Your task to perform on an android device: Go to battery settings Image 0: 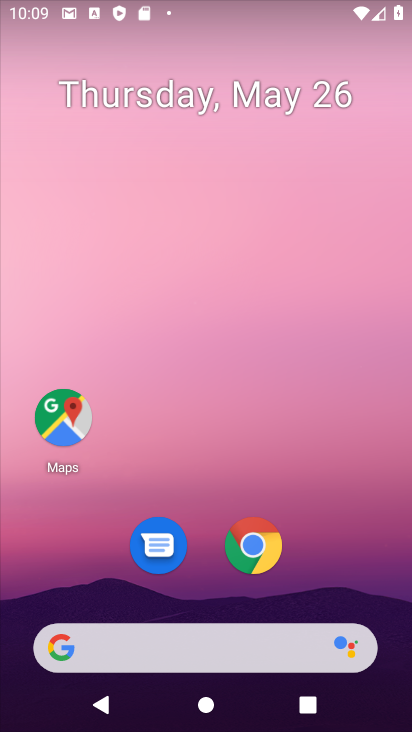
Step 0: press home button
Your task to perform on an android device: Go to battery settings Image 1: 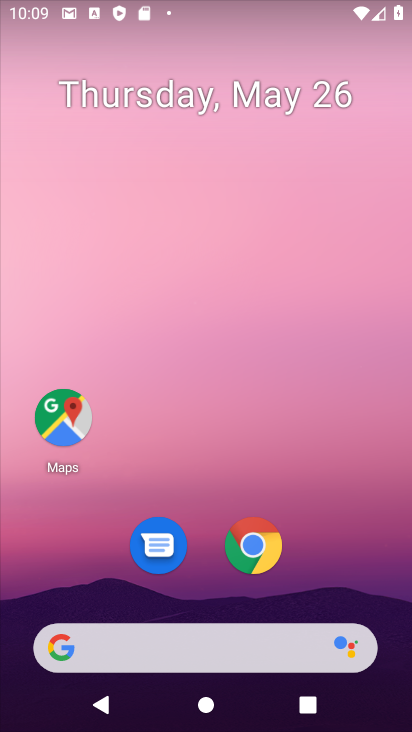
Step 1: drag from (319, 505) to (380, 140)
Your task to perform on an android device: Go to battery settings Image 2: 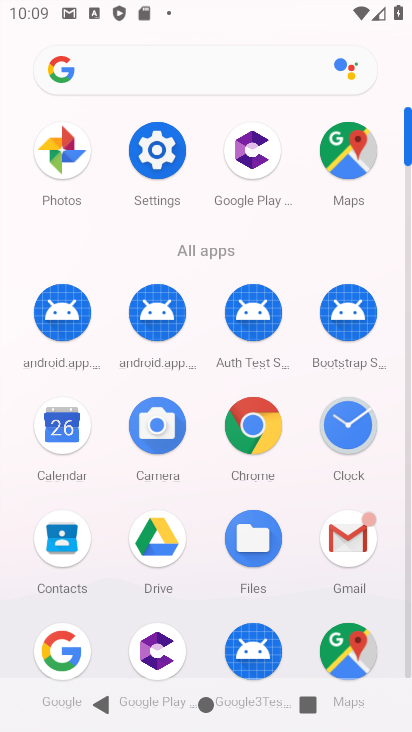
Step 2: drag from (332, 367) to (326, 161)
Your task to perform on an android device: Go to battery settings Image 3: 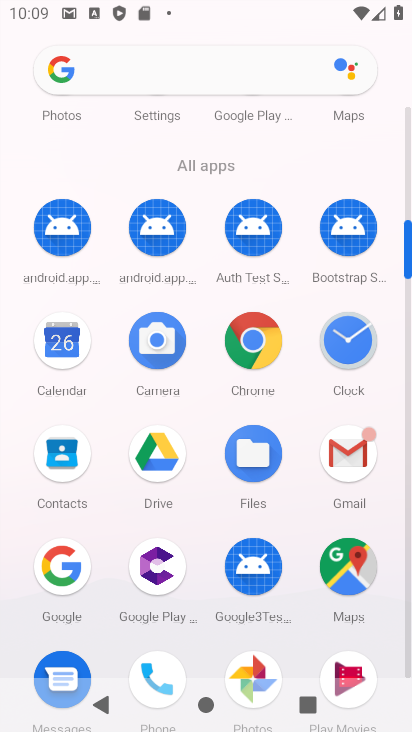
Step 3: drag from (193, 293) to (122, 619)
Your task to perform on an android device: Go to battery settings Image 4: 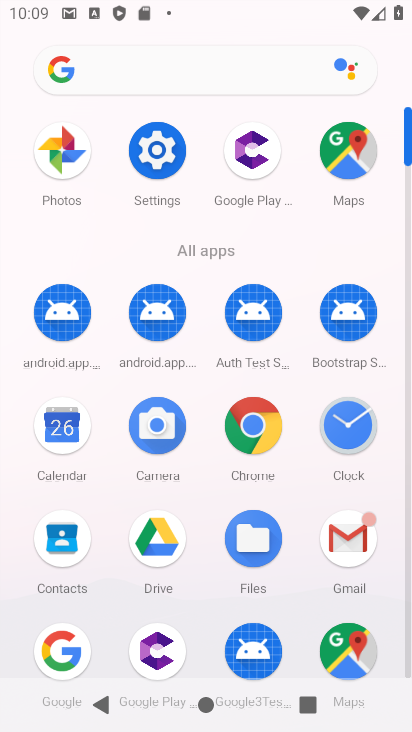
Step 4: click (178, 163)
Your task to perform on an android device: Go to battery settings Image 5: 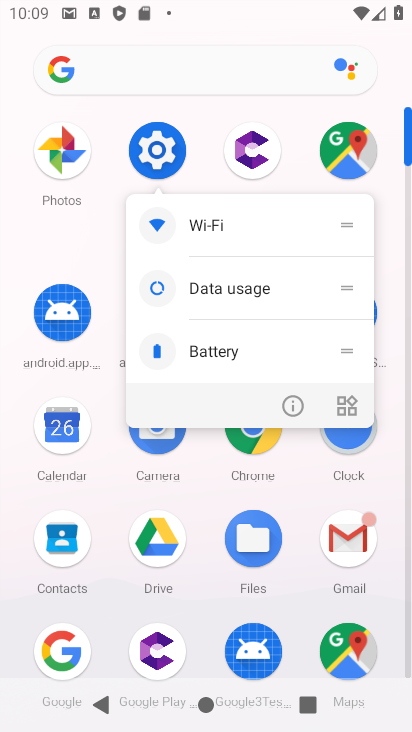
Step 5: click (177, 156)
Your task to perform on an android device: Go to battery settings Image 6: 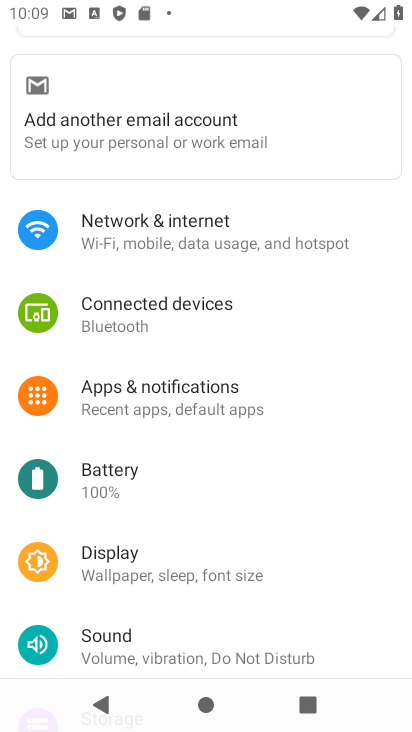
Step 6: click (114, 453)
Your task to perform on an android device: Go to battery settings Image 7: 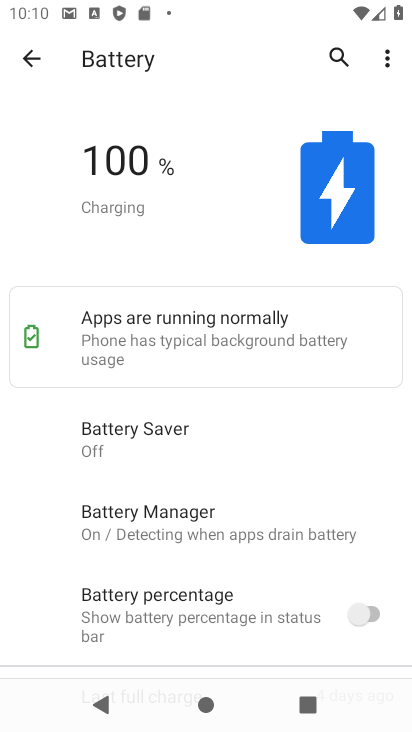
Step 7: task complete